Your task to perform on an android device: Play the last video I watched on Youtube Image 0: 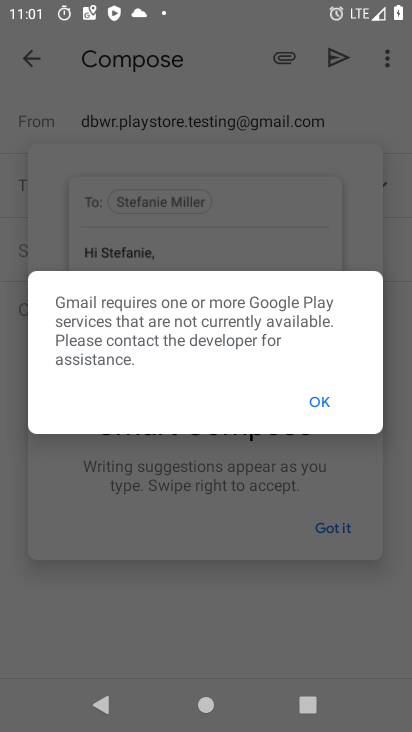
Step 0: press home button
Your task to perform on an android device: Play the last video I watched on Youtube Image 1: 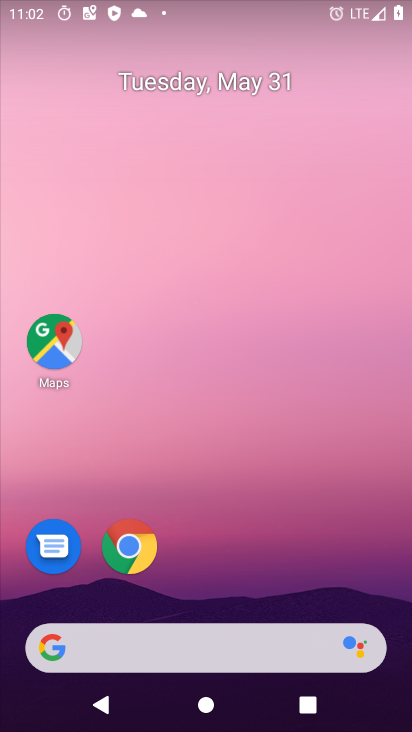
Step 1: drag from (201, 532) to (213, 268)
Your task to perform on an android device: Play the last video I watched on Youtube Image 2: 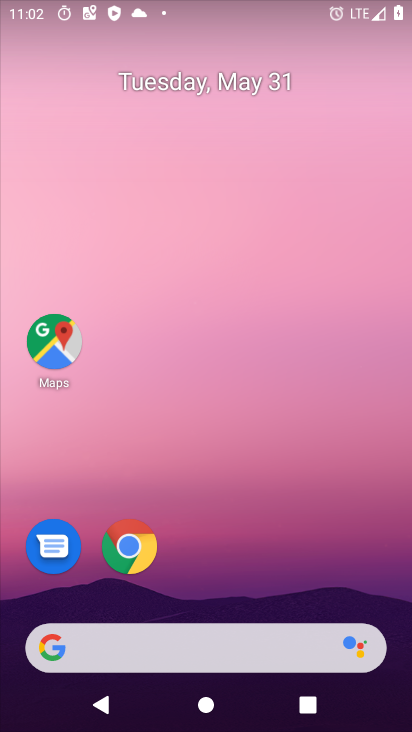
Step 2: drag from (266, 529) to (260, 89)
Your task to perform on an android device: Play the last video I watched on Youtube Image 3: 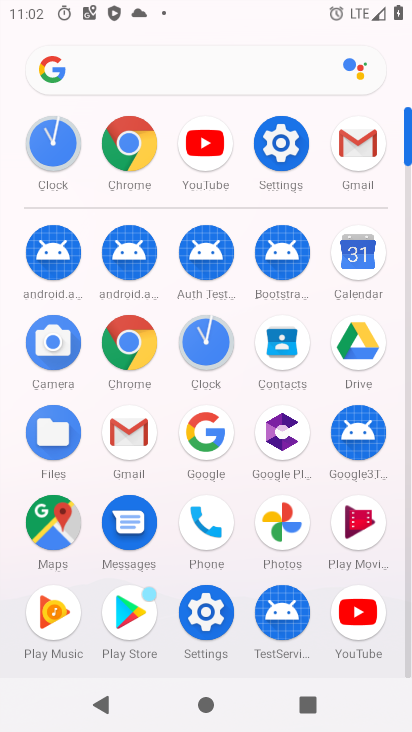
Step 3: click (202, 140)
Your task to perform on an android device: Play the last video I watched on Youtube Image 4: 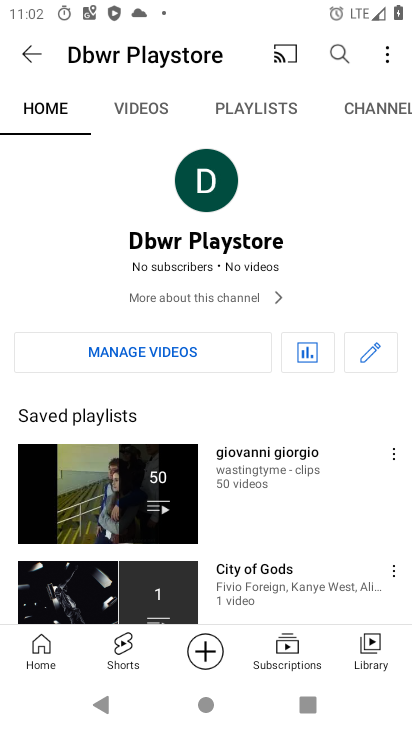
Step 4: click (368, 642)
Your task to perform on an android device: Play the last video I watched on Youtube Image 5: 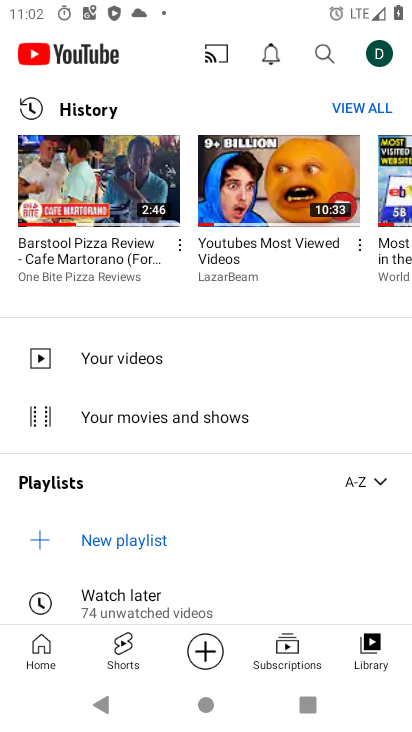
Step 5: drag from (182, 543) to (226, 276)
Your task to perform on an android device: Play the last video I watched on Youtube Image 6: 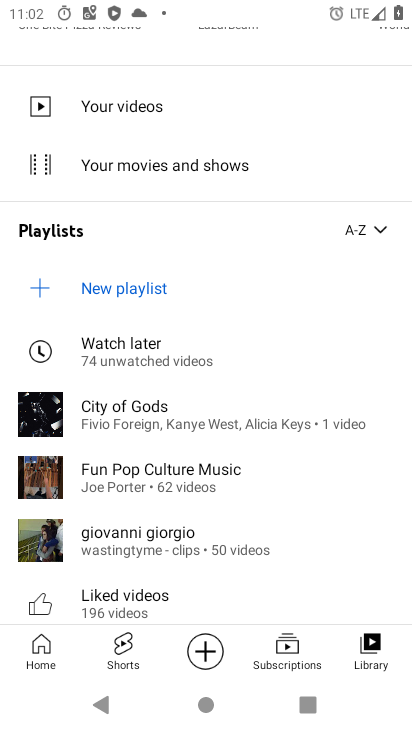
Step 6: drag from (248, 136) to (318, 492)
Your task to perform on an android device: Play the last video I watched on Youtube Image 7: 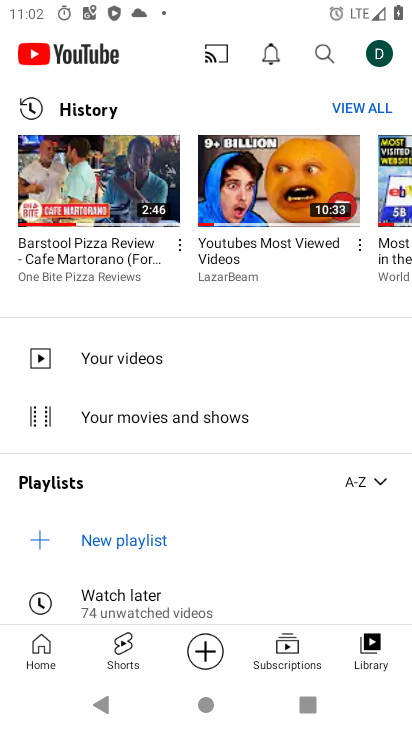
Step 7: drag from (304, 136) to (337, 452)
Your task to perform on an android device: Play the last video I watched on Youtube Image 8: 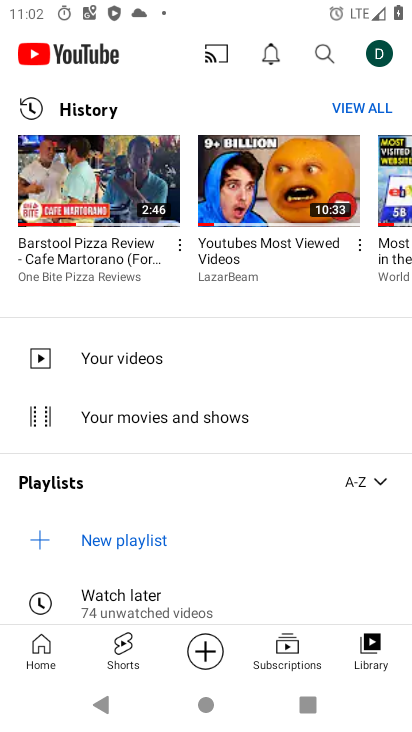
Step 8: drag from (300, 200) to (73, 181)
Your task to perform on an android device: Play the last video I watched on Youtube Image 9: 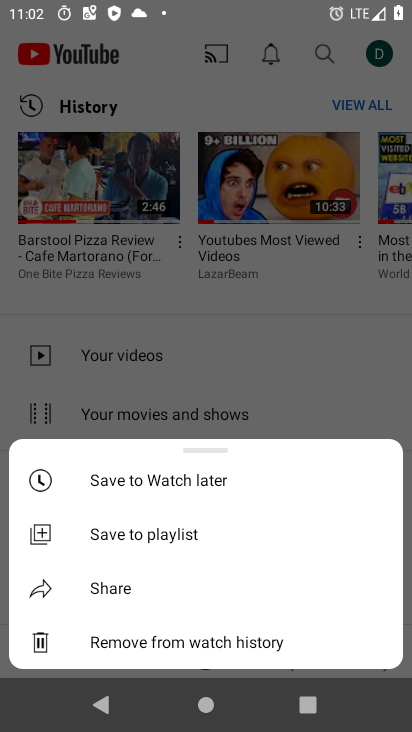
Step 9: click (302, 342)
Your task to perform on an android device: Play the last video I watched on Youtube Image 10: 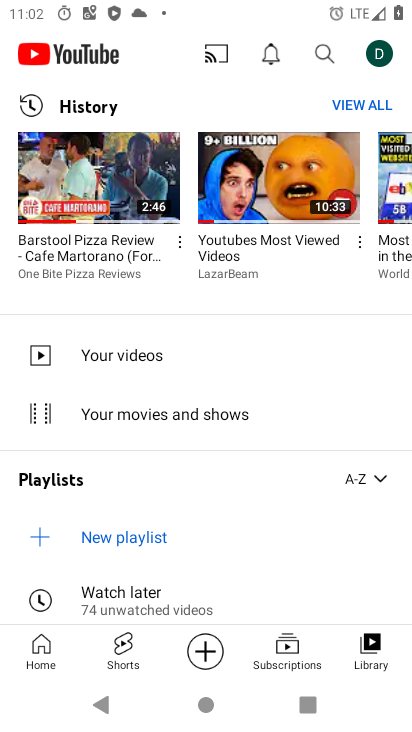
Step 10: drag from (217, 569) to (220, 302)
Your task to perform on an android device: Play the last video I watched on Youtube Image 11: 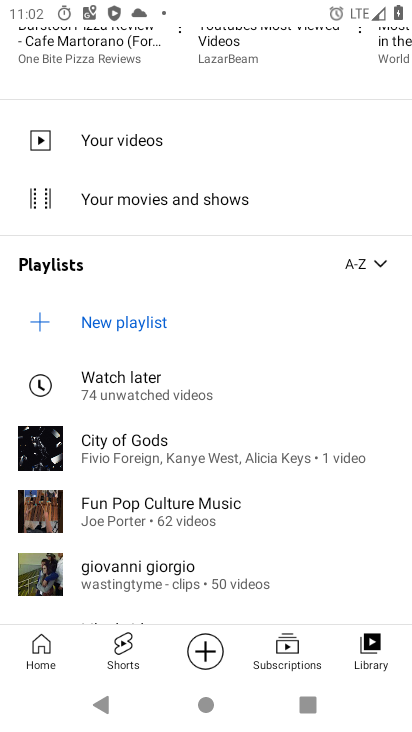
Step 11: click (167, 388)
Your task to perform on an android device: Play the last video I watched on Youtube Image 12: 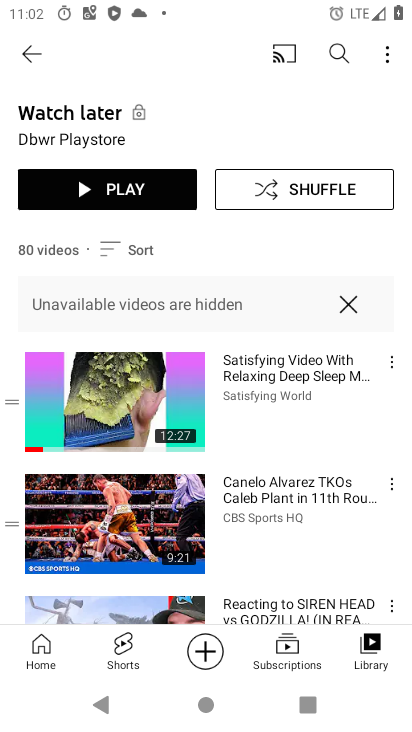
Step 12: click (158, 386)
Your task to perform on an android device: Play the last video I watched on Youtube Image 13: 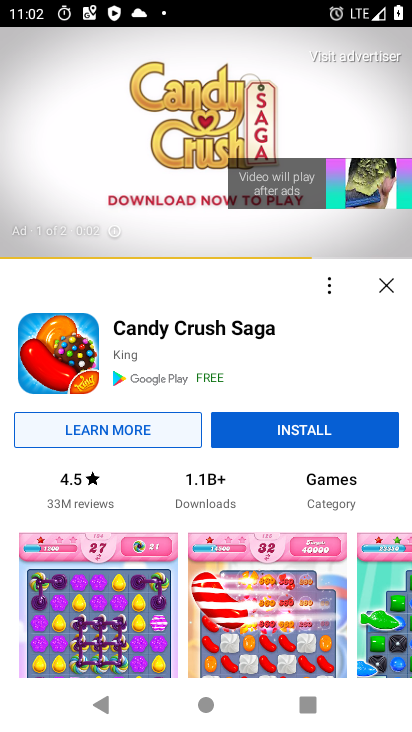
Step 13: click (396, 278)
Your task to perform on an android device: Play the last video I watched on Youtube Image 14: 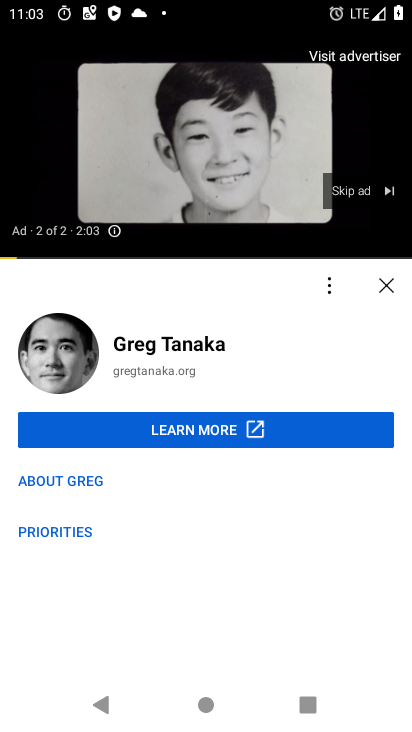
Step 14: click (362, 179)
Your task to perform on an android device: Play the last video I watched on Youtube Image 15: 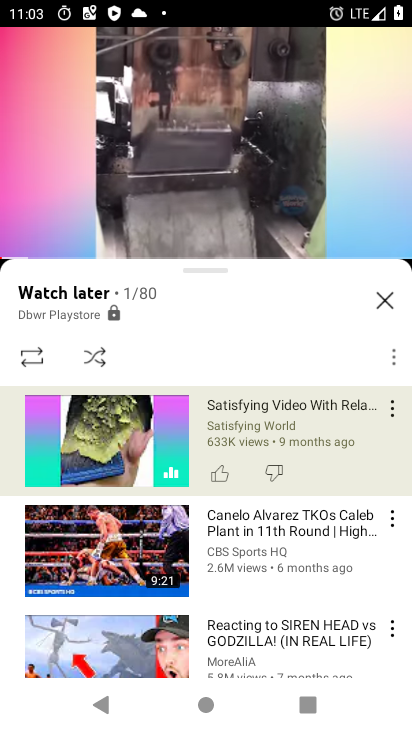
Step 15: task complete